Your task to perform on an android device: Go to Reddit.com Image 0: 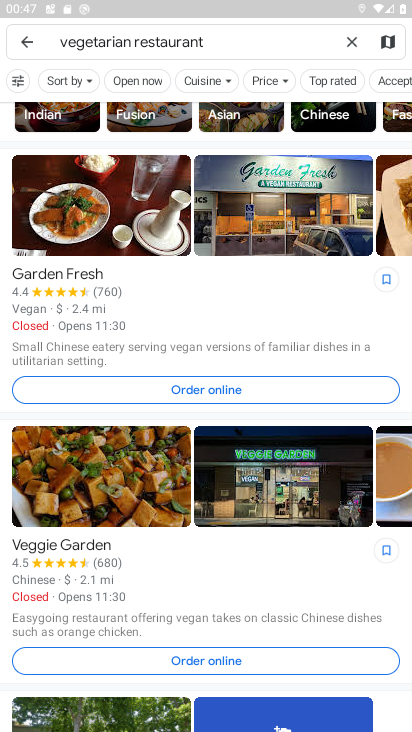
Step 0: press home button
Your task to perform on an android device: Go to Reddit.com Image 1: 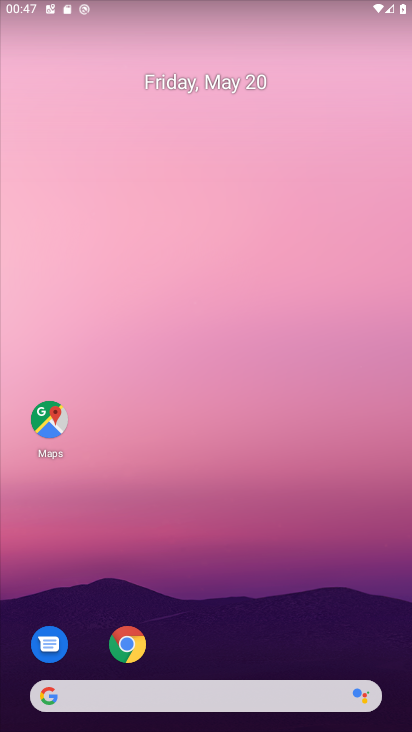
Step 1: drag from (245, 304) to (264, 235)
Your task to perform on an android device: Go to Reddit.com Image 2: 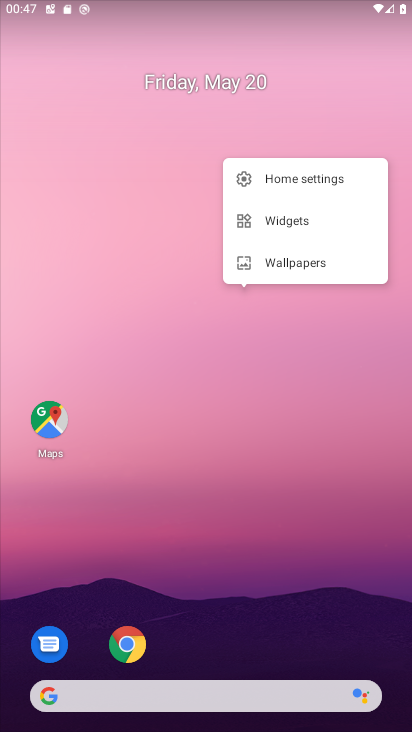
Step 2: drag from (201, 677) to (207, 289)
Your task to perform on an android device: Go to Reddit.com Image 3: 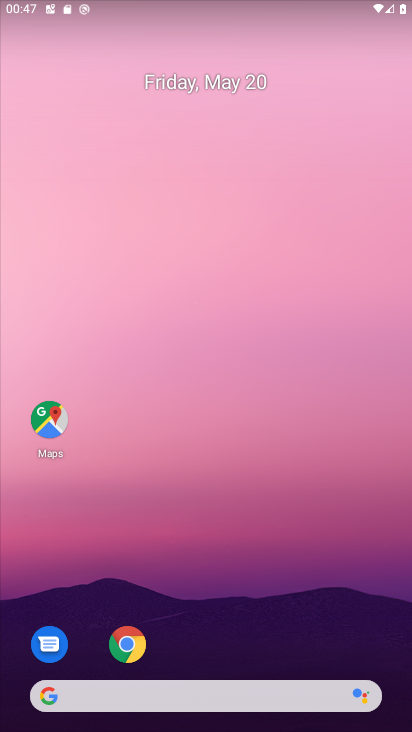
Step 3: drag from (177, 682) to (186, 316)
Your task to perform on an android device: Go to Reddit.com Image 4: 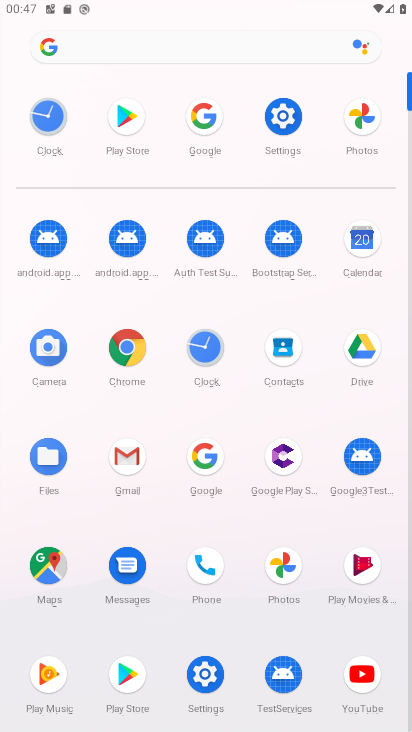
Step 4: click (208, 462)
Your task to perform on an android device: Go to Reddit.com Image 5: 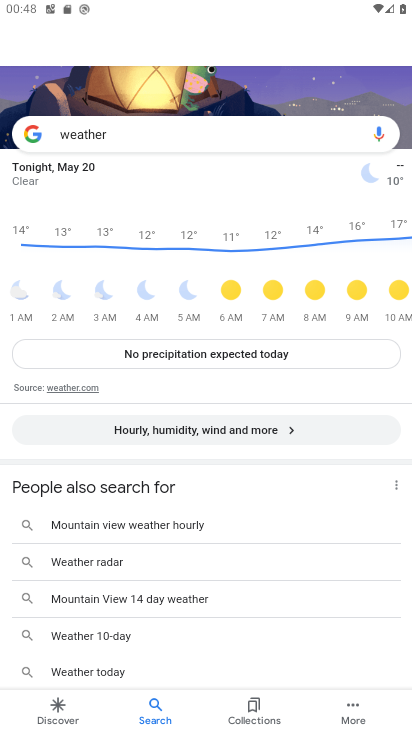
Step 5: click (157, 142)
Your task to perform on an android device: Go to Reddit.com Image 6: 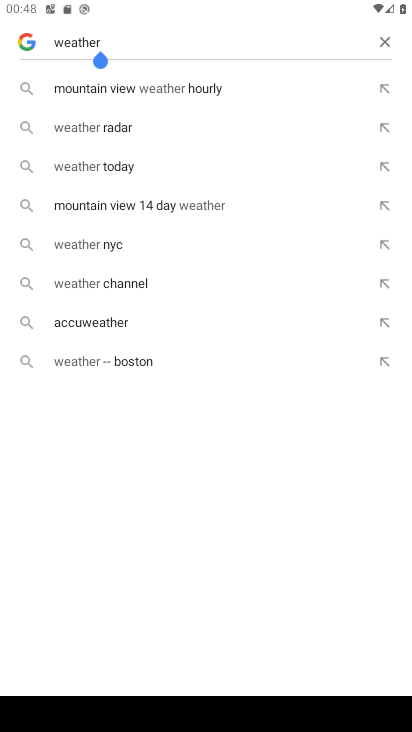
Step 6: click (381, 41)
Your task to perform on an android device: Go to Reddit.com Image 7: 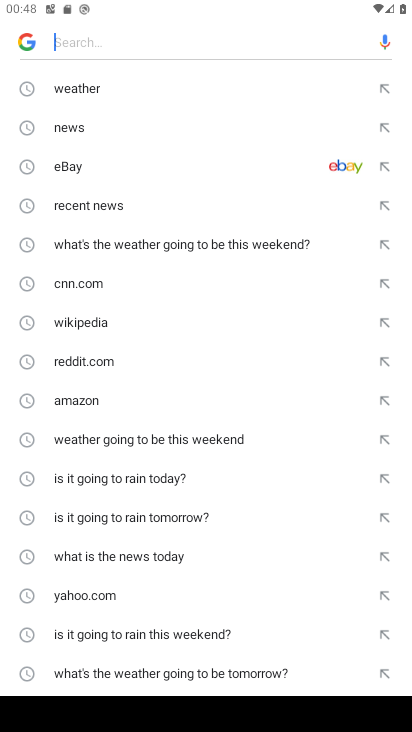
Step 7: click (97, 365)
Your task to perform on an android device: Go to Reddit.com Image 8: 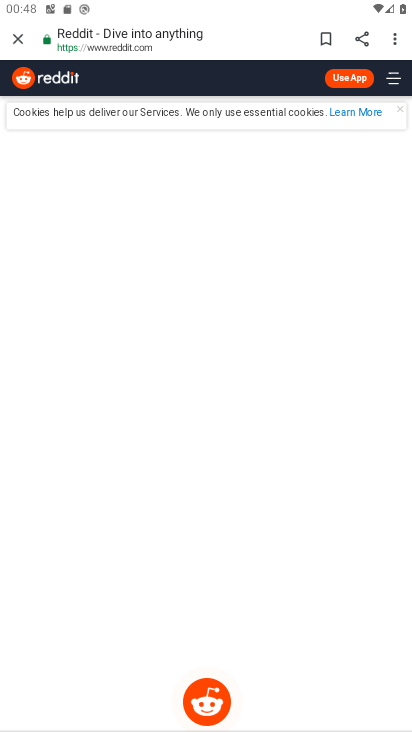
Step 8: task complete